Your task to perform on an android device: Go to Amazon Image 0: 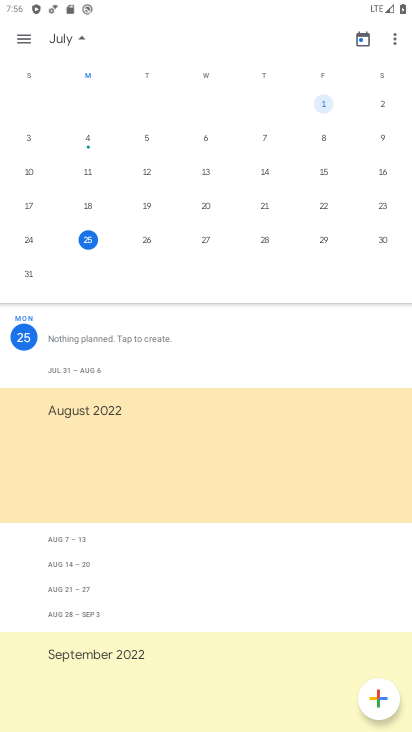
Step 0: press home button
Your task to perform on an android device: Go to Amazon Image 1: 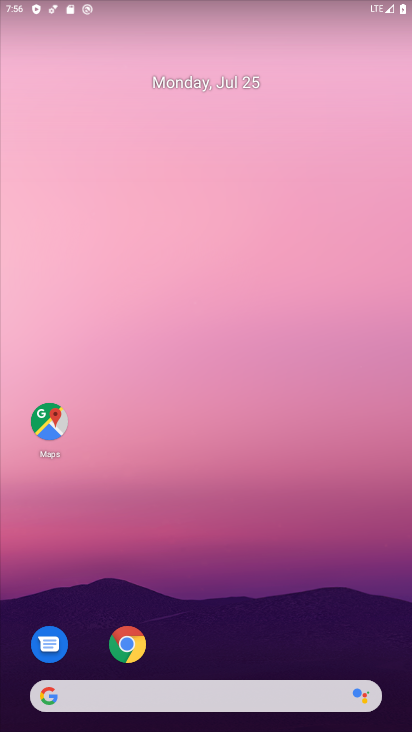
Step 1: click (131, 642)
Your task to perform on an android device: Go to Amazon Image 2: 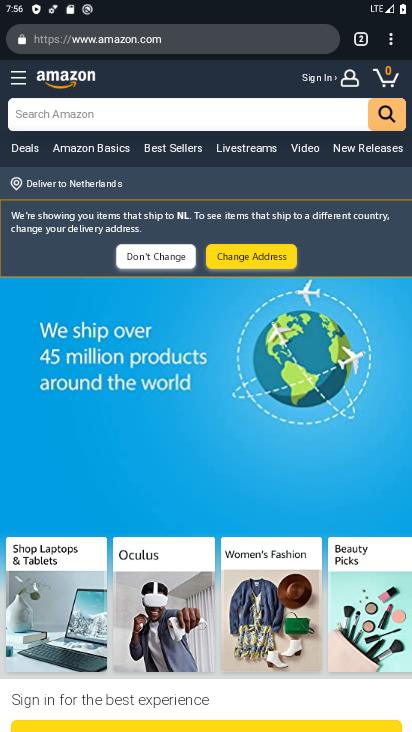
Step 2: task complete